Your task to perform on an android device: turn on airplane mode Image 0: 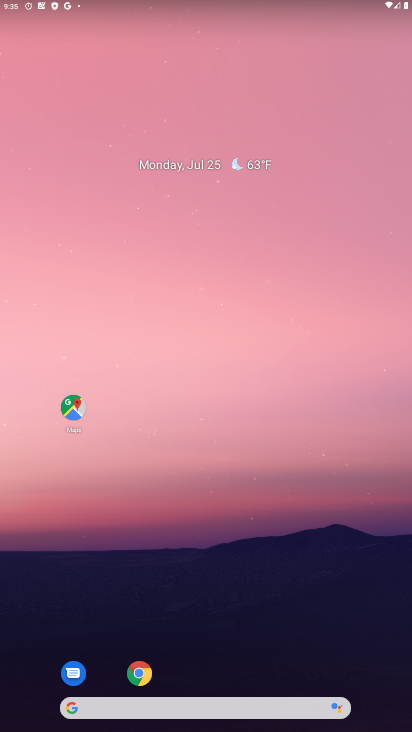
Step 0: drag from (202, 679) to (10, 412)
Your task to perform on an android device: turn on airplane mode Image 1: 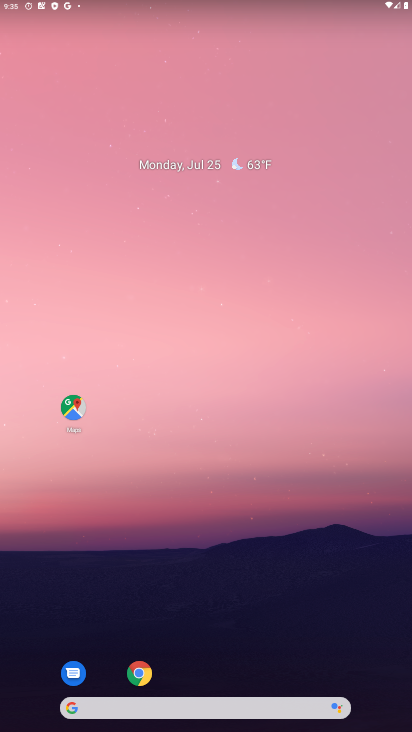
Step 1: drag from (185, 664) to (217, 112)
Your task to perform on an android device: turn on airplane mode Image 2: 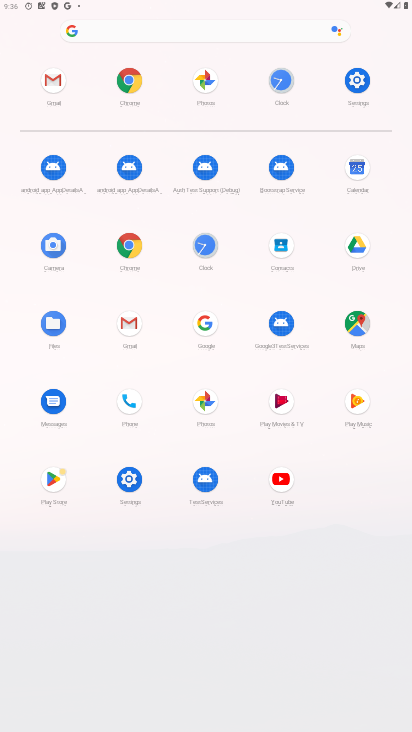
Step 2: click (130, 483)
Your task to perform on an android device: turn on airplane mode Image 3: 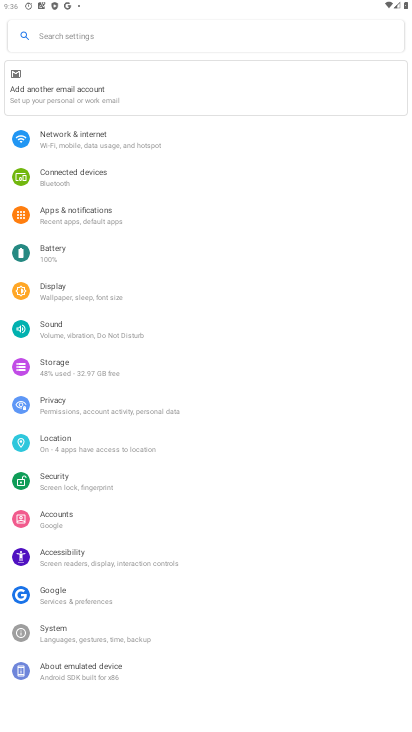
Step 3: click (87, 150)
Your task to perform on an android device: turn on airplane mode Image 4: 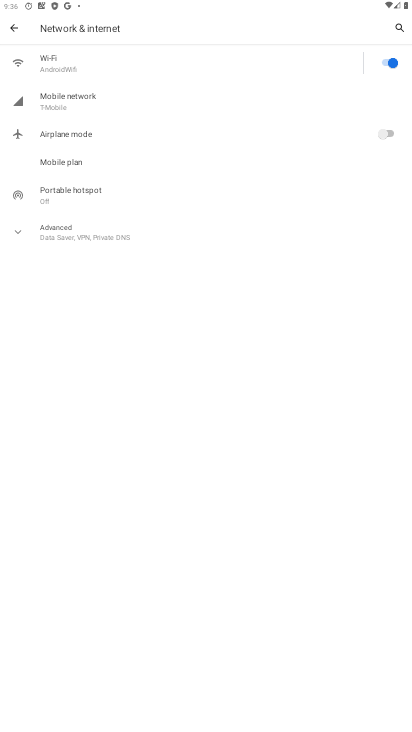
Step 4: click (60, 130)
Your task to perform on an android device: turn on airplane mode Image 5: 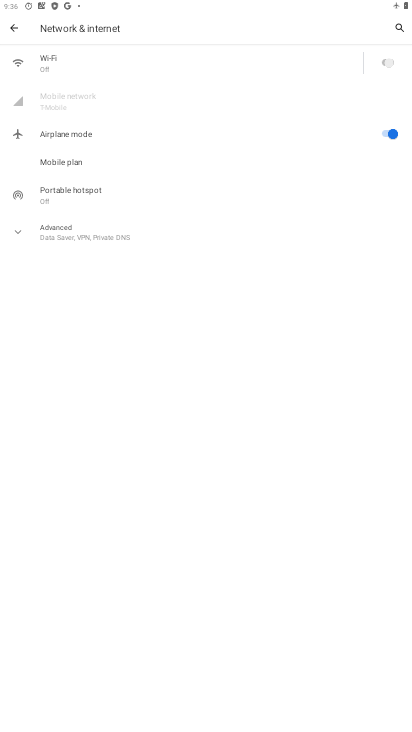
Step 5: task complete